Your task to perform on an android device: turn on the 12-hour format for clock Image 0: 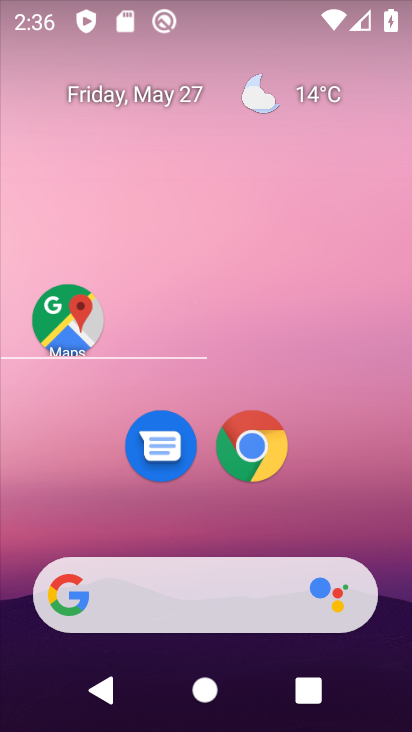
Step 0: press home button
Your task to perform on an android device: turn on the 12-hour format for clock Image 1: 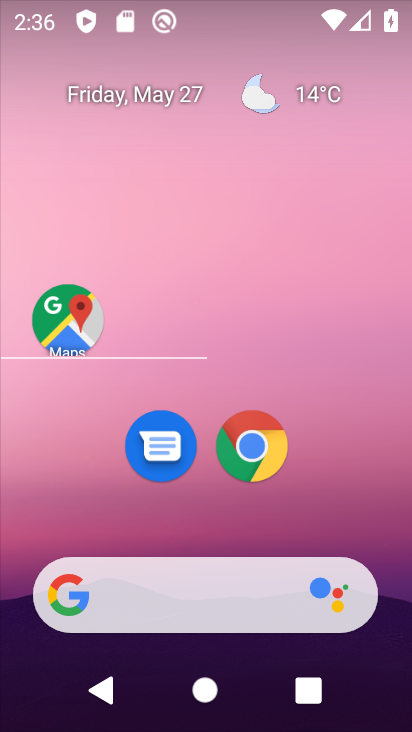
Step 1: click (297, 115)
Your task to perform on an android device: turn on the 12-hour format for clock Image 2: 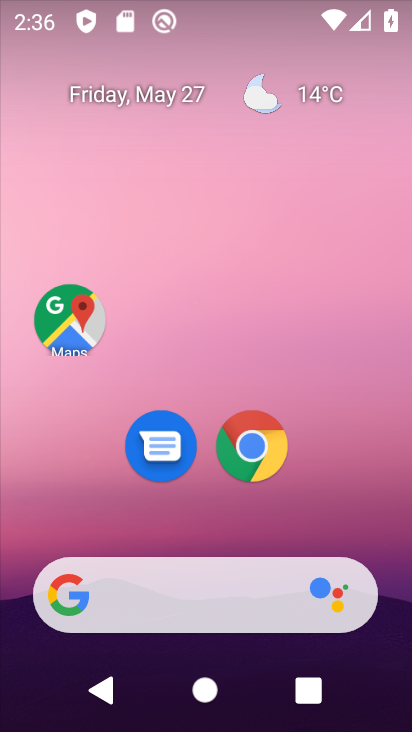
Step 2: drag from (213, 596) to (283, 99)
Your task to perform on an android device: turn on the 12-hour format for clock Image 3: 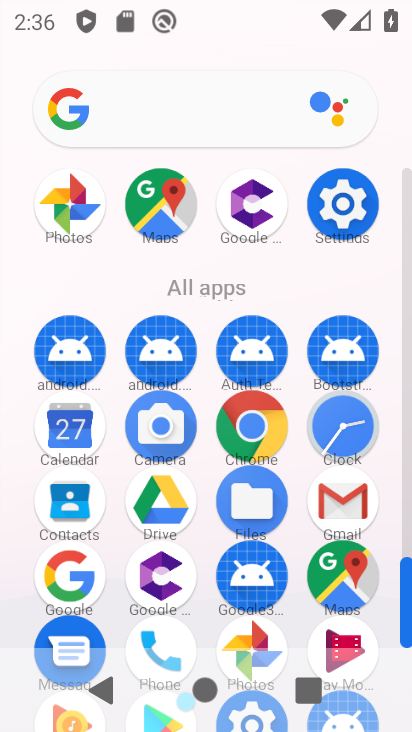
Step 3: click (346, 432)
Your task to perform on an android device: turn on the 12-hour format for clock Image 4: 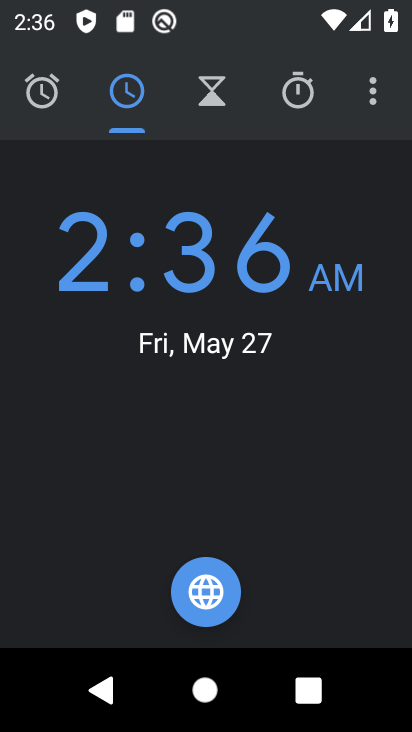
Step 4: click (378, 93)
Your task to perform on an android device: turn on the 12-hour format for clock Image 5: 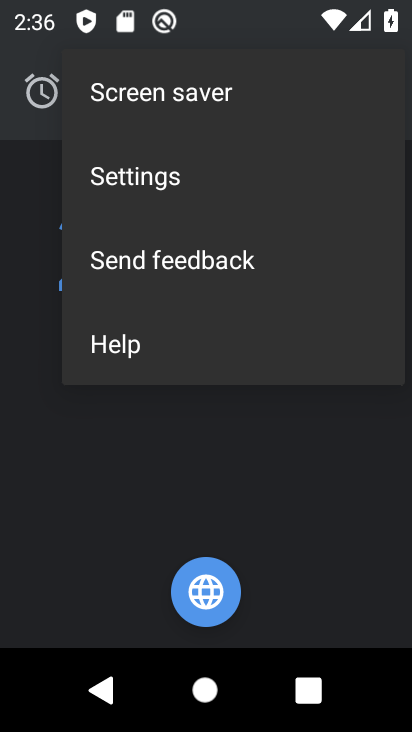
Step 5: click (151, 178)
Your task to perform on an android device: turn on the 12-hour format for clock Image 6: 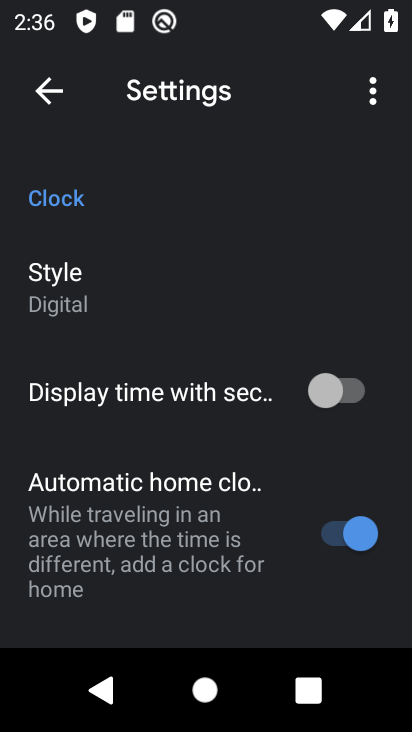
Step 6: drag from (252, 331) to (262, 191)
Your task to perform on an android device: turn on the 12-hour format for clock Image 7: 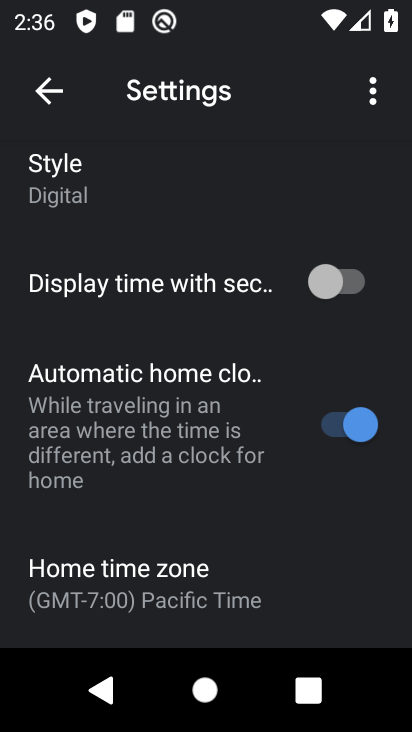
Step 7: drag from (168, 522) to (240, 167)
Your task to perform on an android device: turn on the 12-hour format for clock Image 8: 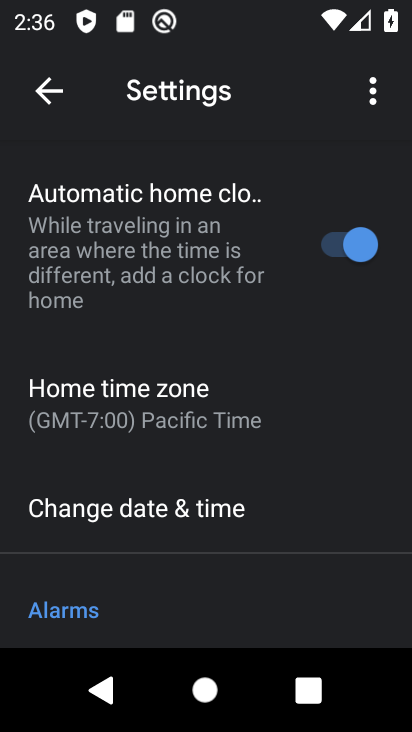
Step 8: click (138, 514)
Your task to perform on an android device: turn on the 12-hour format for clock Image 9: 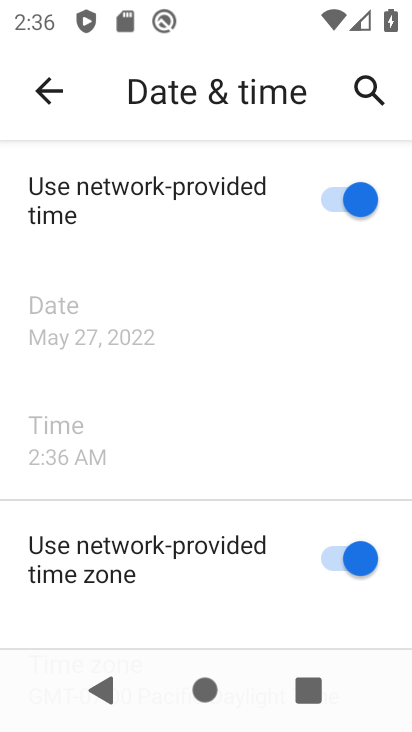
Step 9: task complete